Your task to perform on an android device: Open the web browser Image 0: 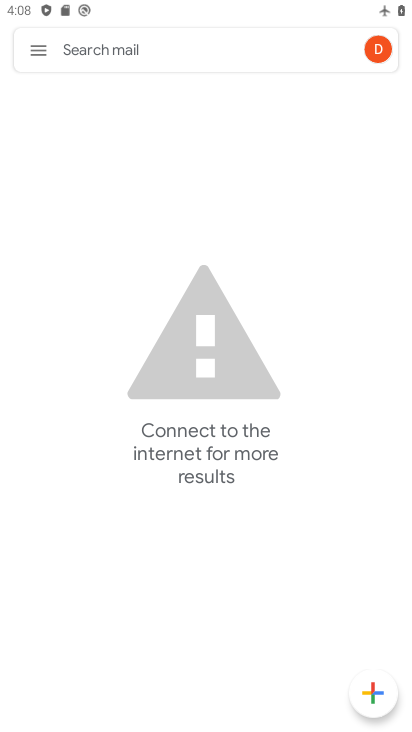
Step 0: press home button
Your task to perform on an android device: Open the web browser Image 1: 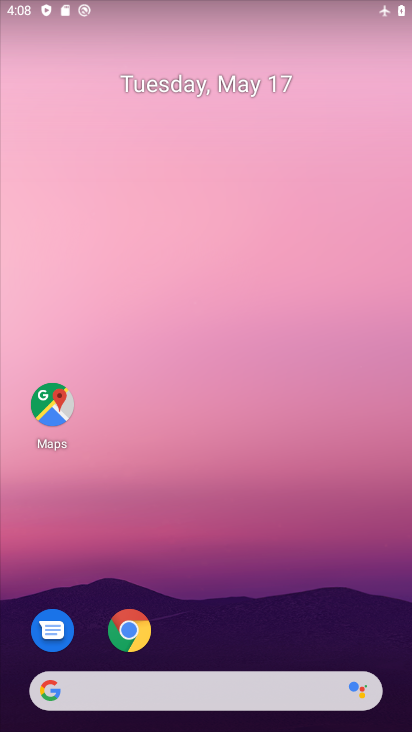
Step 1: click (132, 632)
Your task to perform on an android device: Open the web browser Image 2: 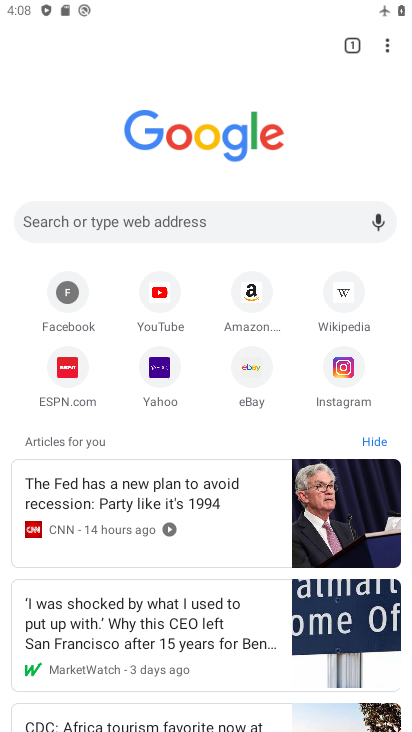
Step 2: task complete